Your task to perform on an android device: Open settings Image 0: 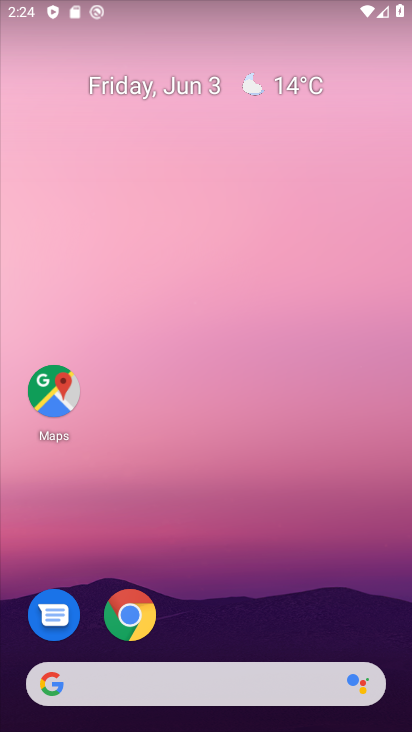
Step 0: click (47, 684)
Your task to perform on an android device: Open settings Image 1: 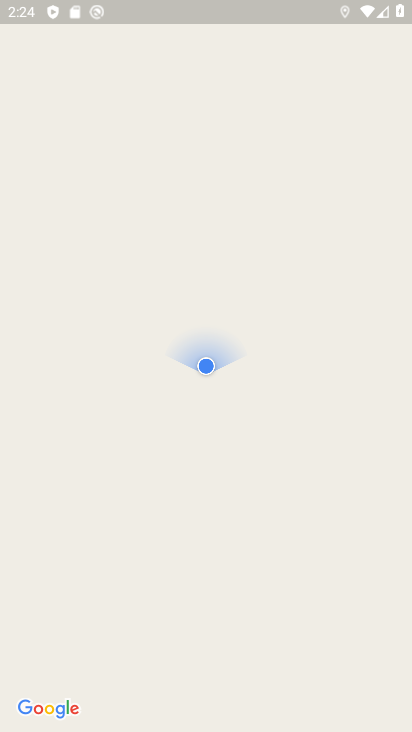
Step 1: press home button
Your task to perform on an android device: Open settings Image 2: 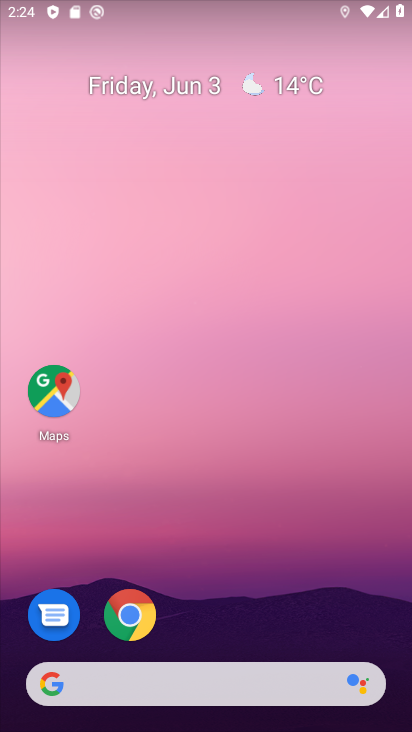
Step 2: drag from (261, 628) to (210, 24)
Your task to perform on an android device: Open settings Image 3: 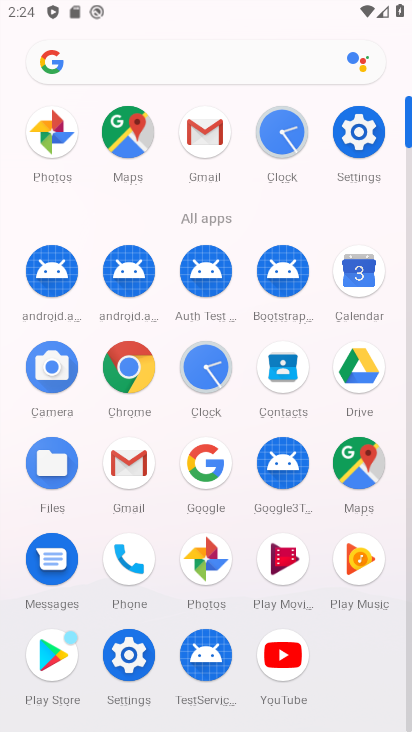
Step 3: click (359, 132)
Your task to perform on an android device: Open settings Image 4: 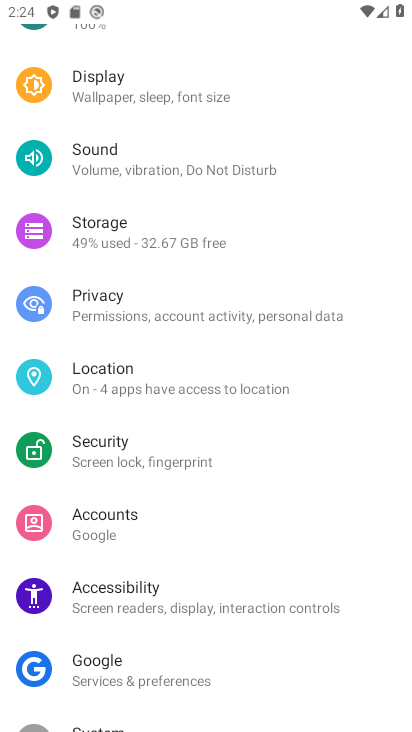
Step 4: task complete